Your task to perform on an android device: turn on notifications settings in the gmail app Image 0: 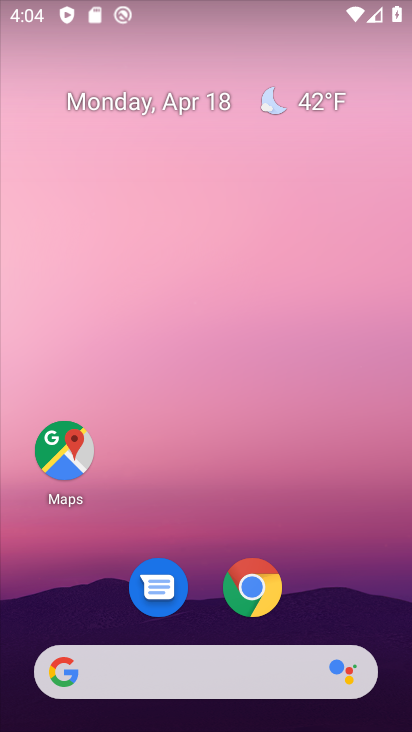
Step 0: drag from (152, 618) to (247, 69)
Your task to perform on an android device: turn on notifications settings in the gmail app Image 1: 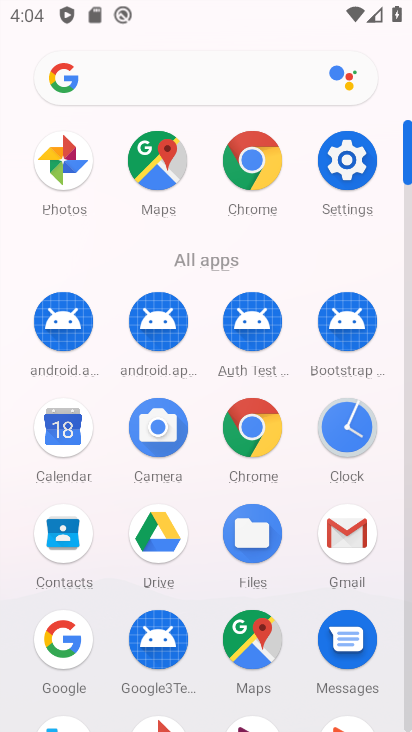
Step 1: drag from (175, 527) to (233, 277)
Your task to perform on an android device: turn on notifications settings in the gmail app Image 2: 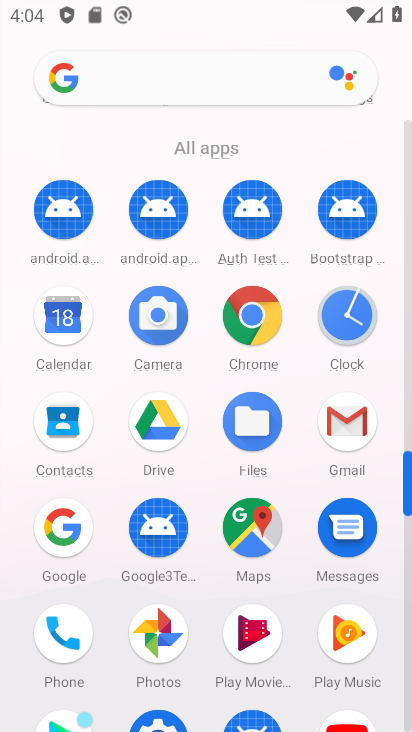
Step 2: drag from (221, 648) to (261, 417)
Your task to perform on an android device: turn on notifications settings in the gmail app Image 3: 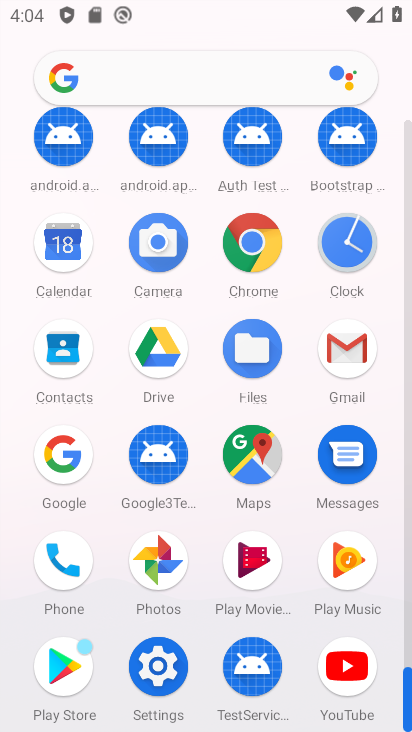
Step 3: click (346, 358)
Your task to perform on an android device: turn on notifications settings in the gmail app Image 4: 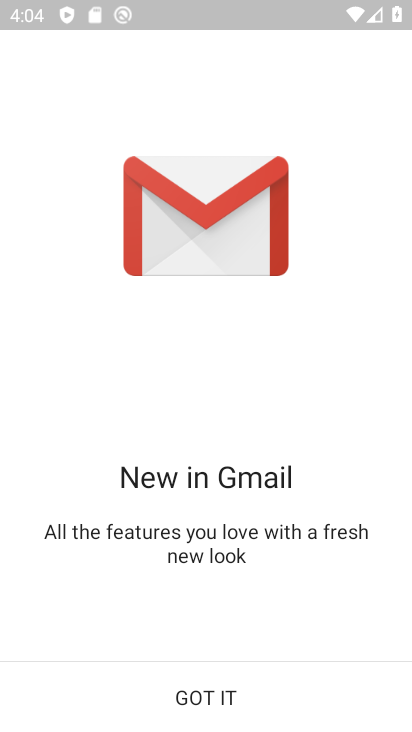
Step 4: click (193, 702)
Your task to perform on an android device: turn on notifications settings in the gmail app Image 5: 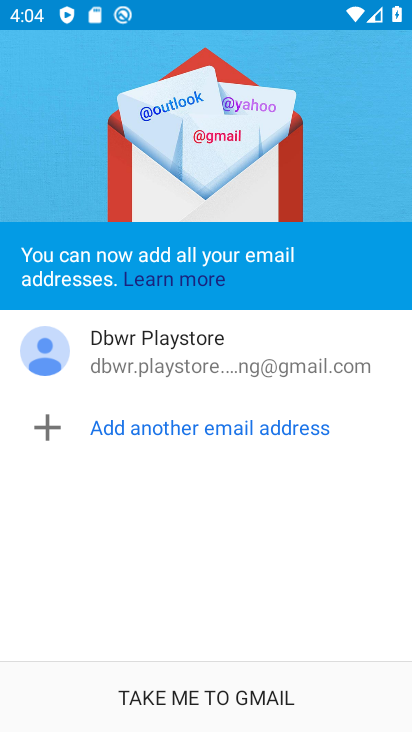
Step 5: click (207, 700)
Your task to perform on an android device: turn on notifications settings in the gmail app Image 6: 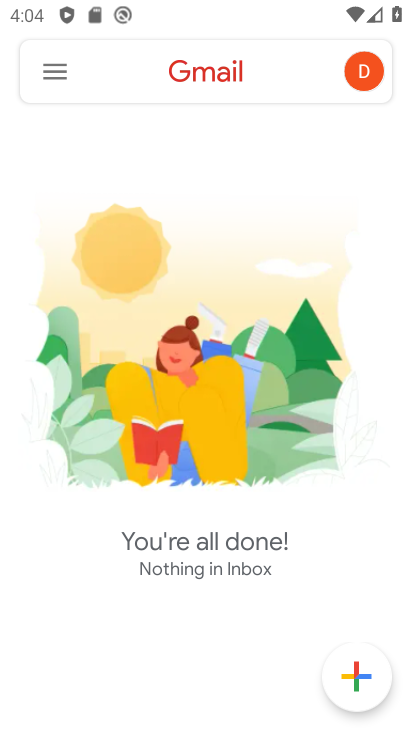
Step 6: click (55, 67)
Your task to perform on an android device: turn on notifications settings in the gmail app Image 7: 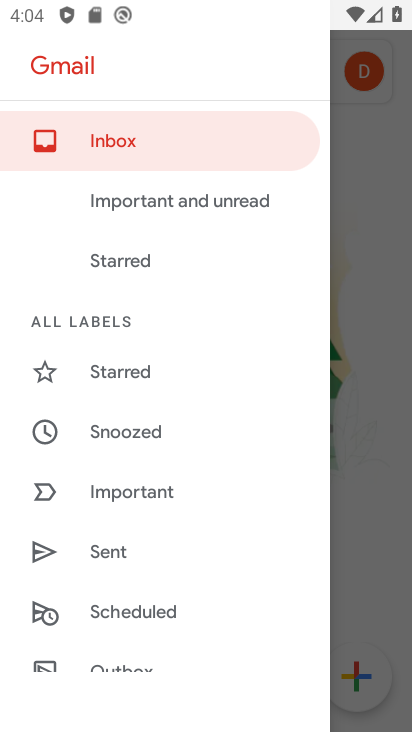
Step 7: drag from (99, 615) to (223, 193)
Your task to perform on an android device: turn on notifications settings in the gmail app Image 8: 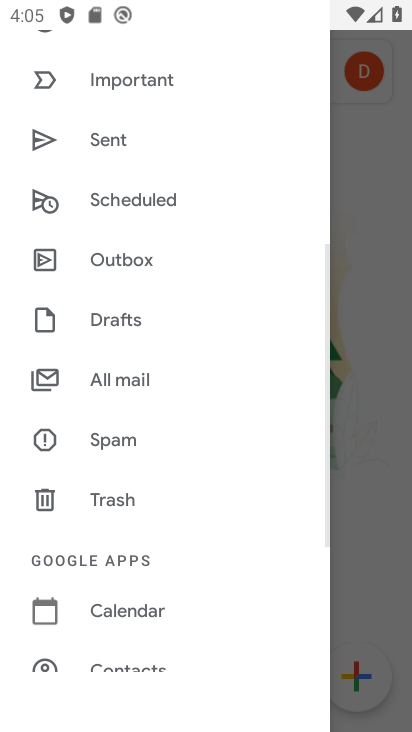
Step 8: drag from (101, 601) to (209, 231)
Your task to perform on an android device: turn on notifications settings in the gmail app Image 9: 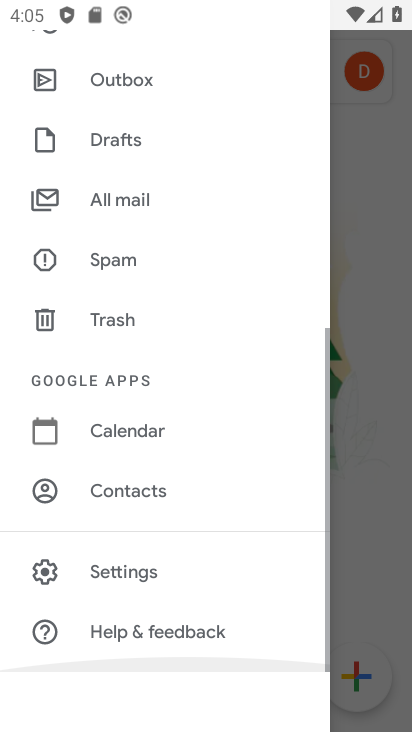
Step 9: click (146, 577)
Your task to perform on an android device: turn on notifications settings in the gmail app Image 10: 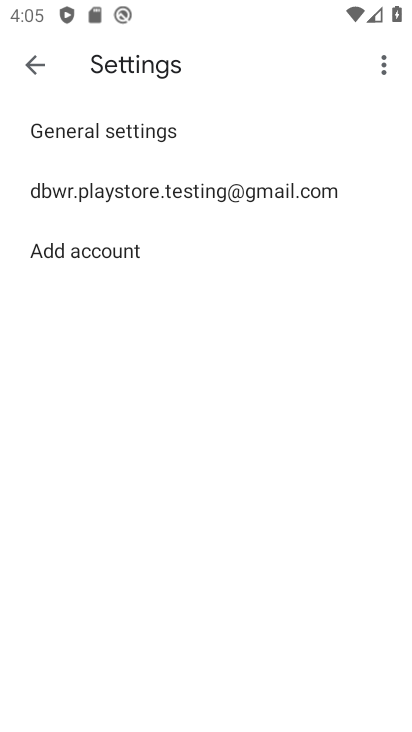
Step 10: click (217, 196)
Your task to perform on an android device: turn on notifications settings in the gmail app Image 11: 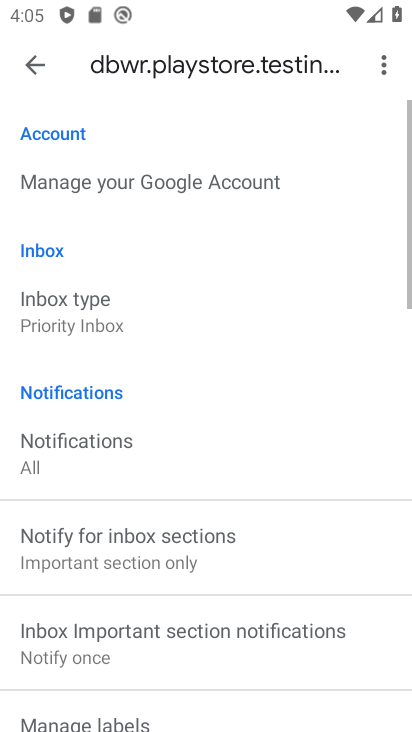
Step 11: drag from (146, 578) to (235, 290)
Your task to perform on an android device: turn on notifications settings in the gmail app Image 12: 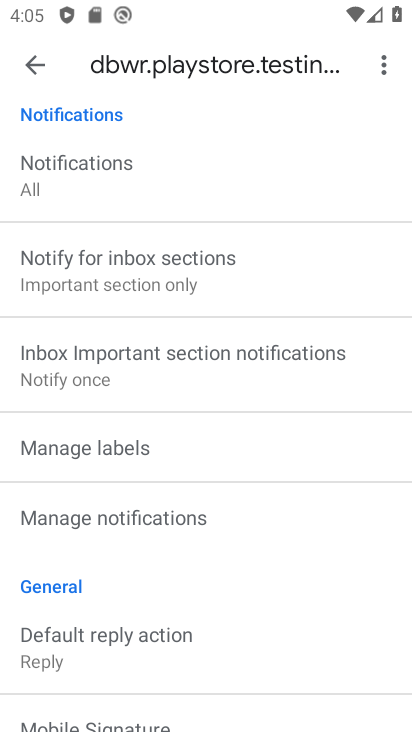
Step 12: click (125, 513)
Your task to perform on an android device: turn on notifications settings in the gmail app Image 13: 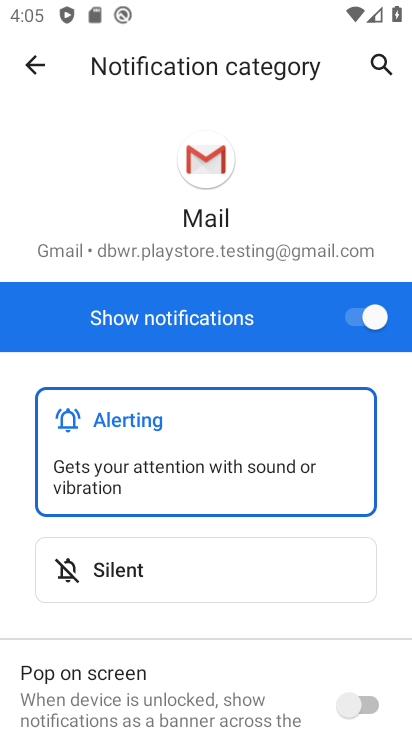
Step 13: task complete